Your task to perform on an android device: Open my contact list Image 0: 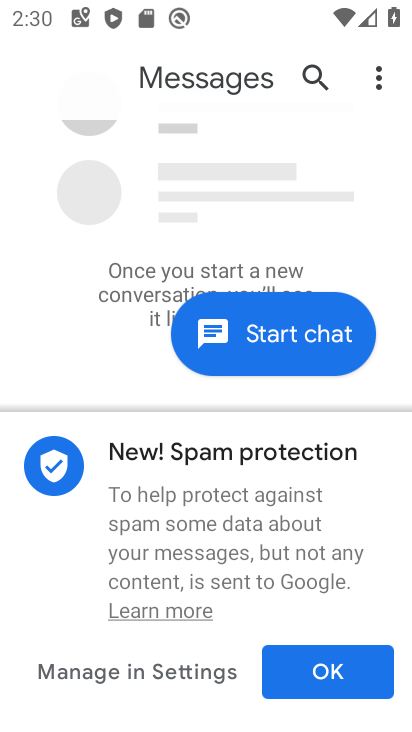
Step 0: press home button
Your task to perform on an android device: Open my contact list Image 1: 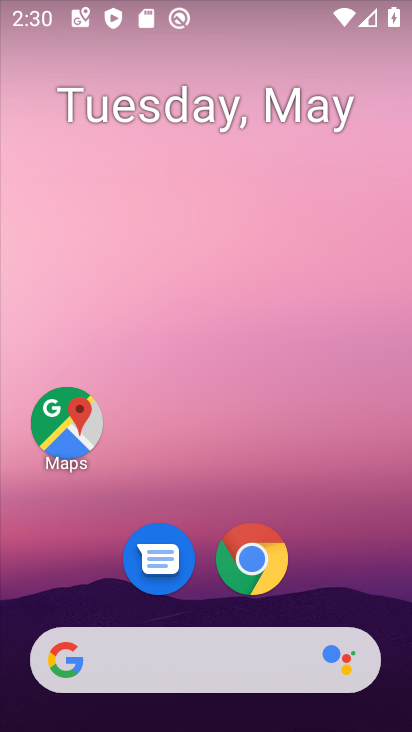
Step 1: drag from (173, 658) to (359, 260)
Your task to perform on an android device: Open my contact list Image 2: 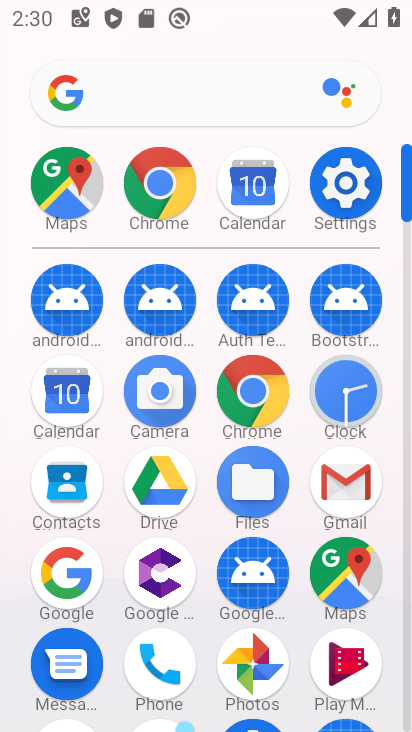
Step 2: click (64, 488)
Your task to perform on an android device: Open my contact list Image 3: 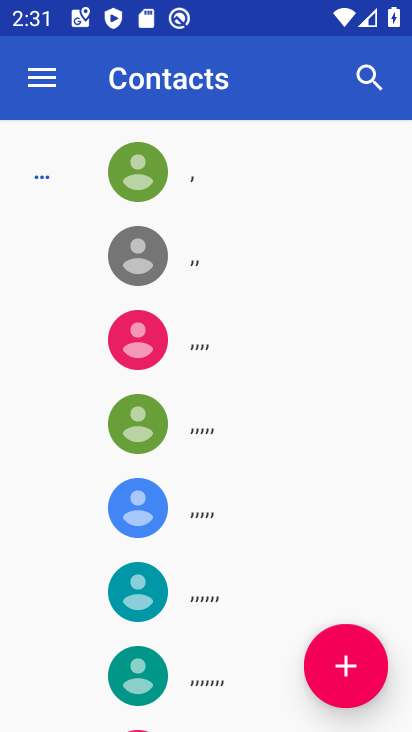
Step 3: task complete